Your task to perform on an android device: Go to Maps Image 0: 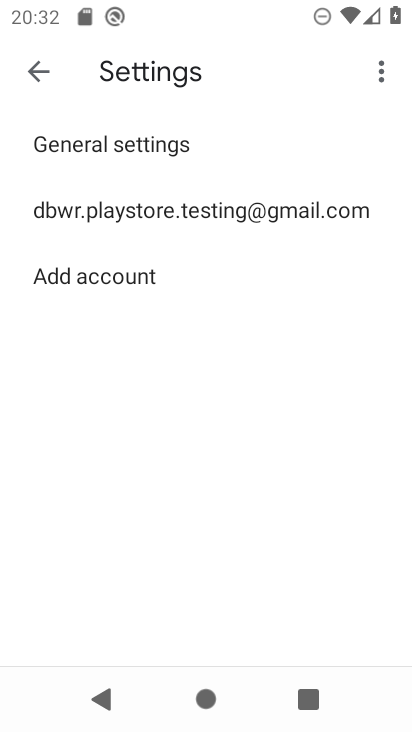
Step 0: press home button
Your task to perform on an android device: Go to Maps Image 1: 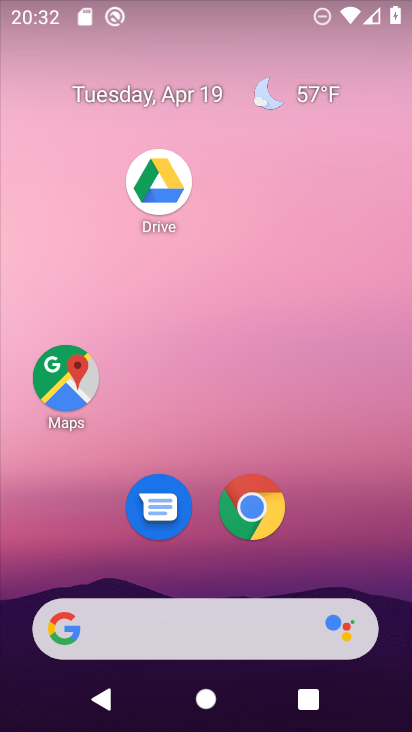
Step 1: click (69, 396)
Your task to perform on an android device: Go to Maps Image 2: 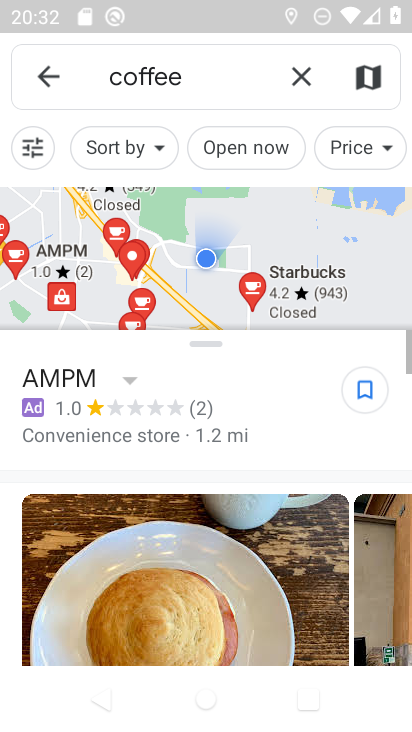
Step 2: click (302, 66)
Your task to perform on an android device: Go to Maps Image 3: 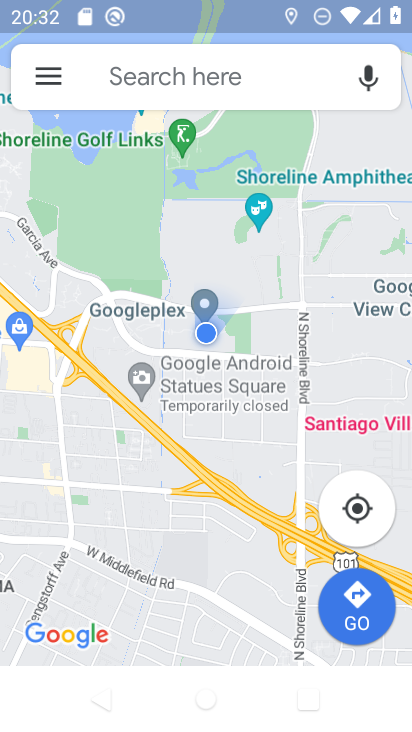
Step 3: task complete